Your task to perform on an android device: Clear the shopping cart on newegg. Search for "dell xps" on newegg, select the first entry, add it to the cart, then select checkout. Image 0: 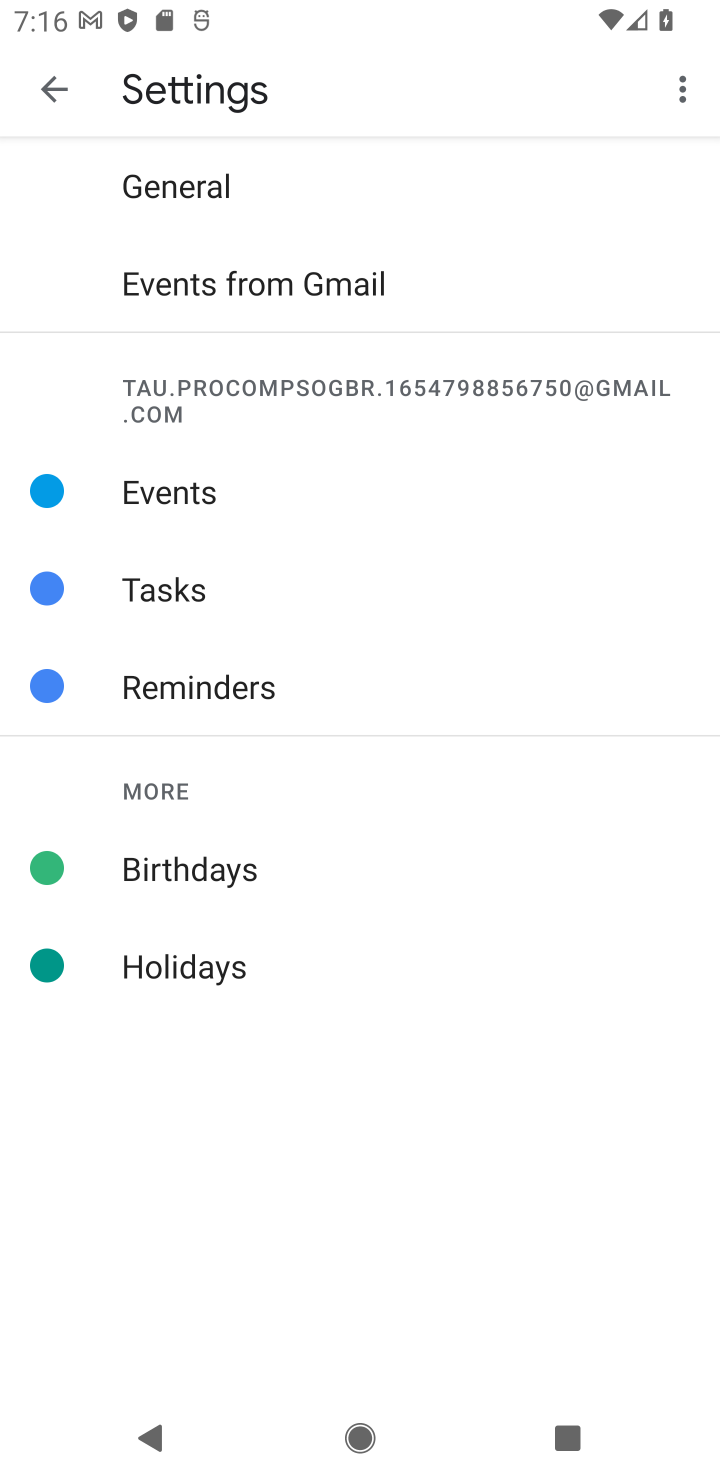
Step 0: press home button
Your task to perform on an android device: Clear the shopping cart on newegg. Search for "dell xps" on newegg, select the first entry, add it to the cart, then select checkout. Image 1: 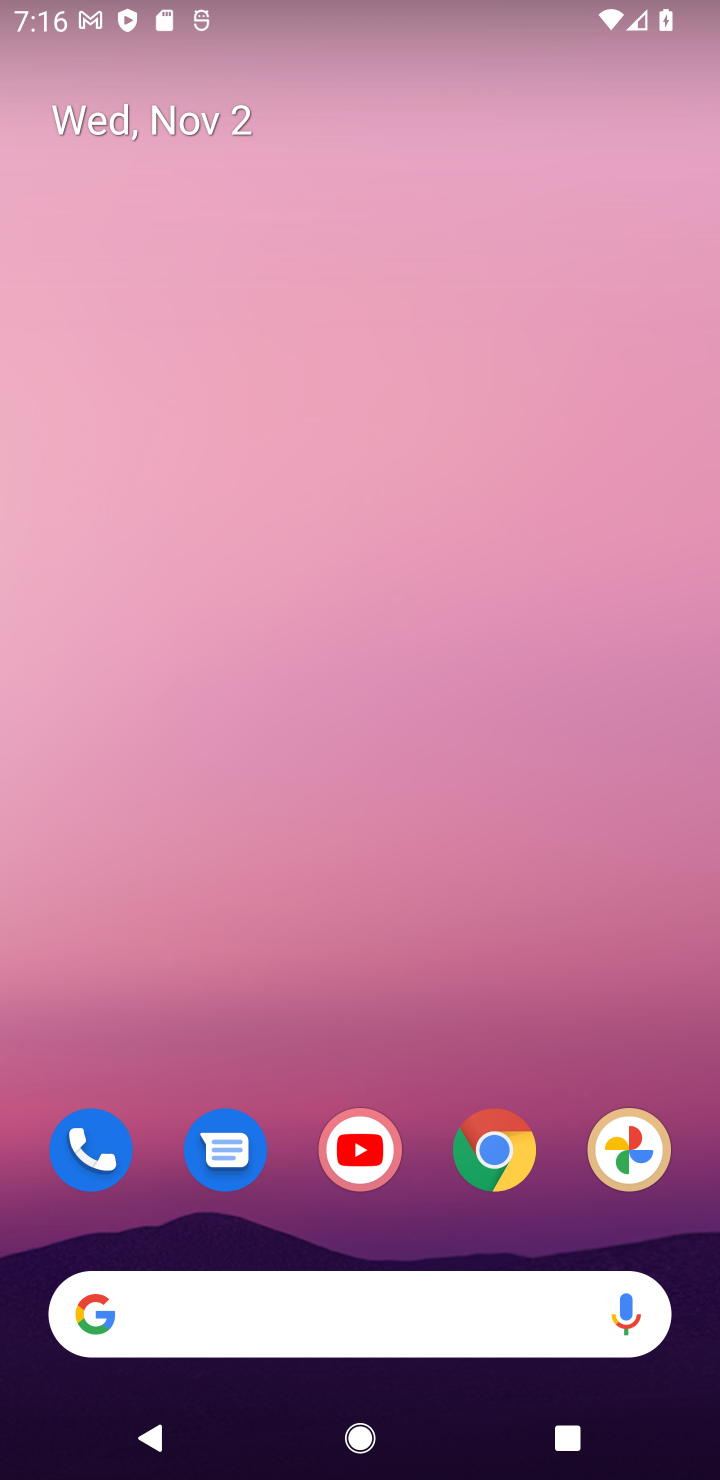
Step 1: click (483, 1162)
Your task to perform on an android device: Clear the shopping cart on newegg. Search for "dell xps" on newegg, select the first entry, add it to the cart, then select checkout. Image 2: 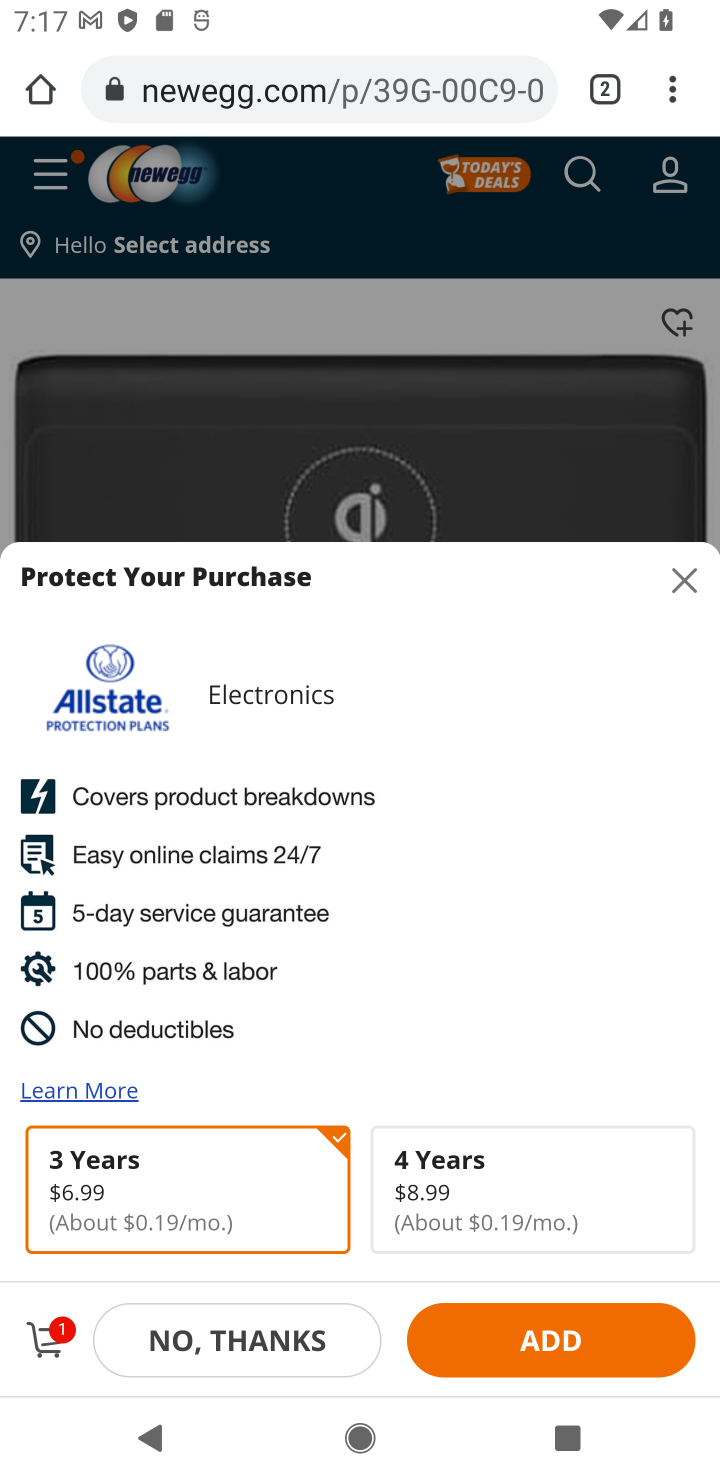
Step 2: click (250, 1328)
Your task to perform on an android device: Clear the shopping cart on newegg. Search for "dell xps" on newegg, select the first entry, add it to the cart, then select checkout. Image 3: 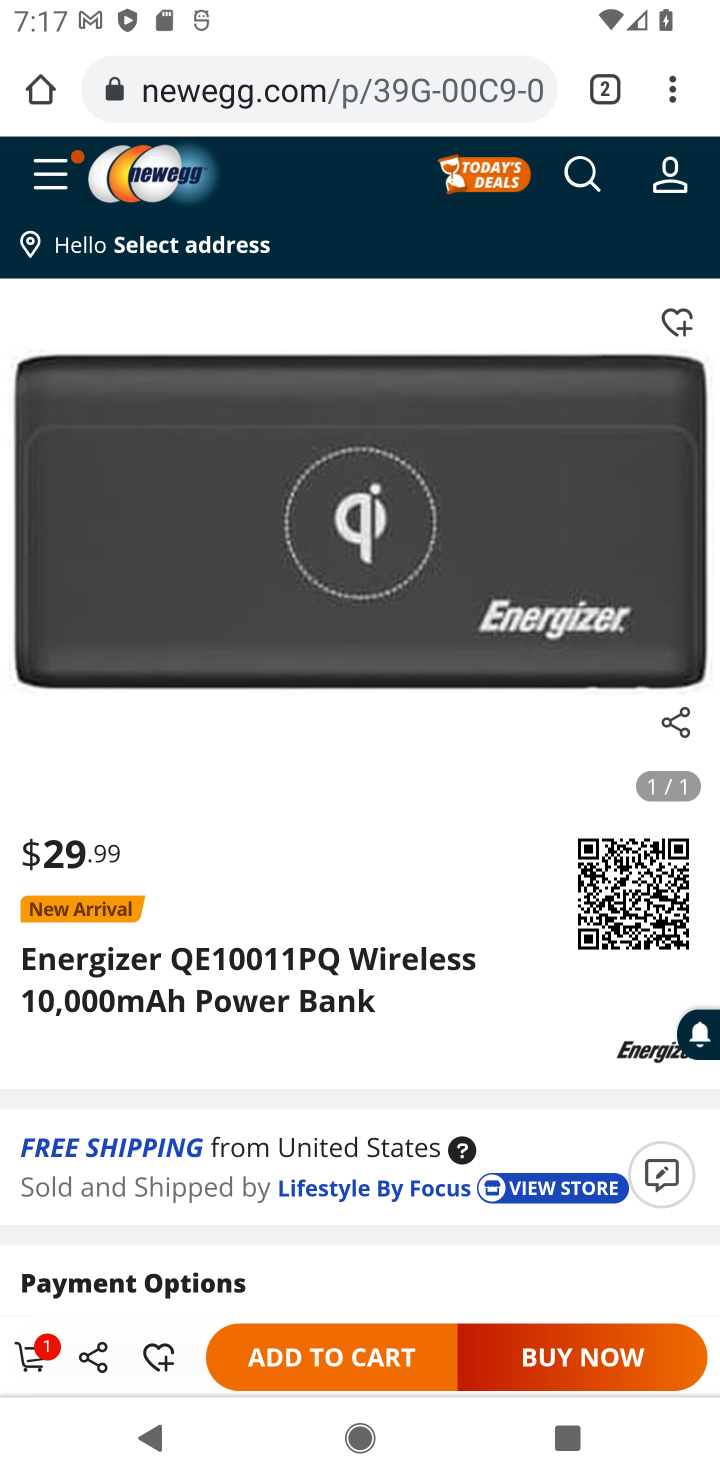
Step 3: click (582, 174)
Your task to perform on an android device: Clear the shopping cart on newegg. Search for "dell xps" on newegg, select the first entry, add it to the cart, then select checkout. Image 4: 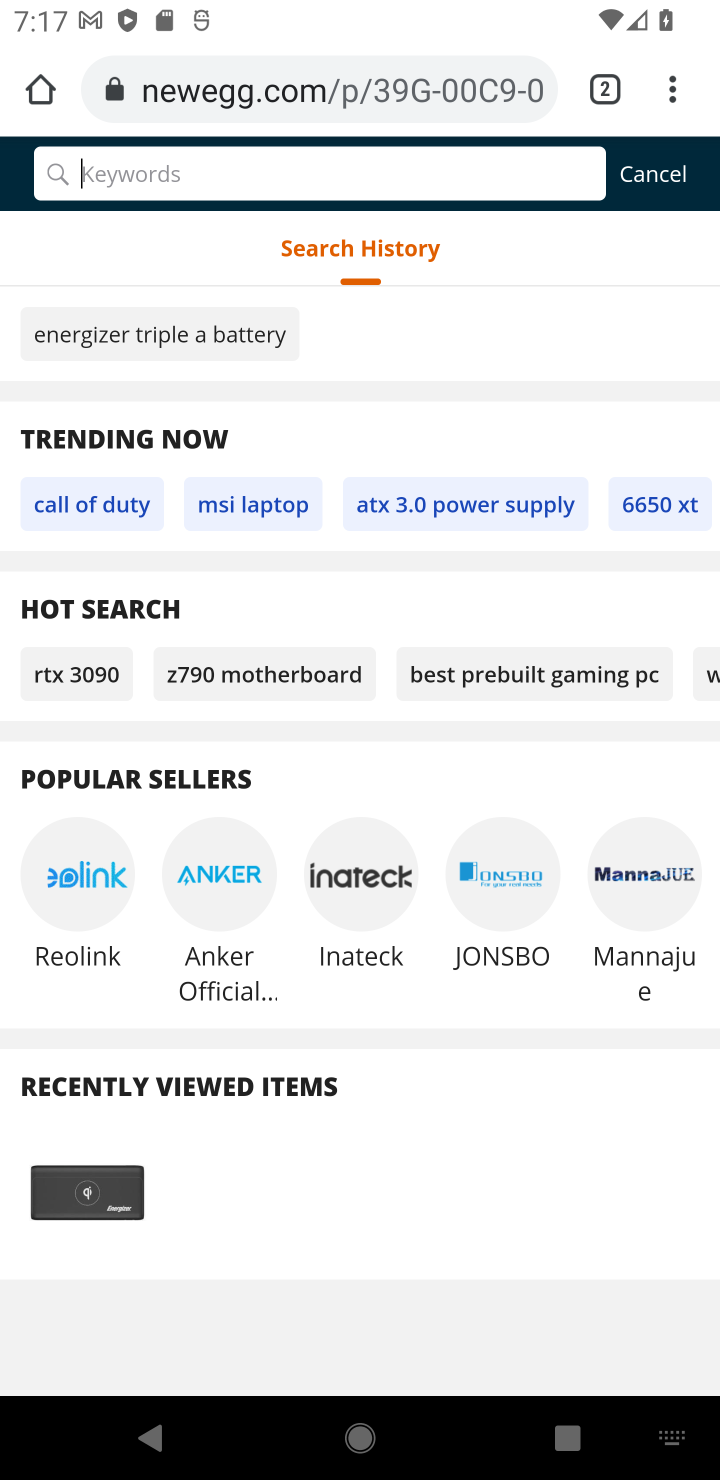
Step 4: type "dell xps"
Your task to perform on an android device: Clear the shopping cart on newegg. Search for "dell xps" on newegg, select the first entry, add it to the cart, then select checkout. Image 5: 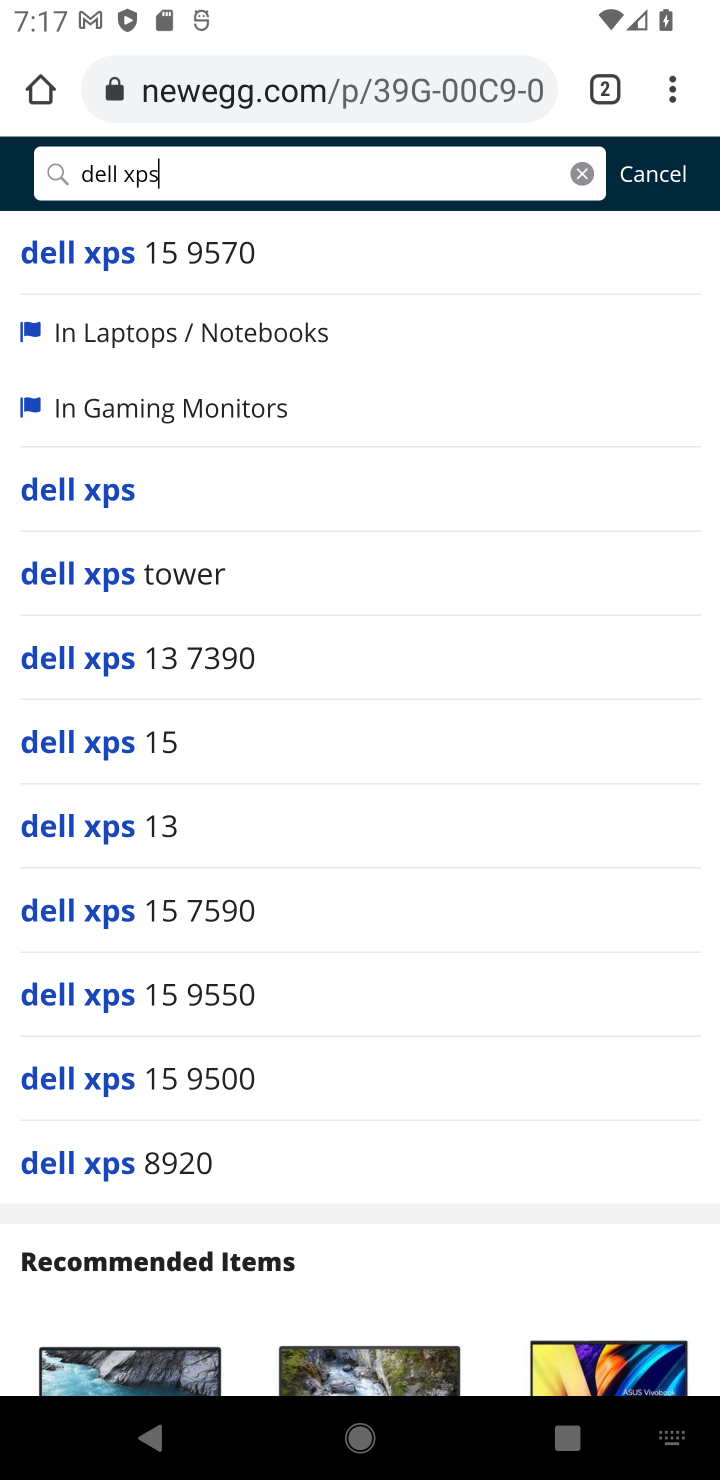
Step 5: click (230, 244)
Your task to perform on an android device: Clear the shopping cart on newegg. Search for "dell xps" on newegg, select the first entry, add it to the cart, then select checkout. Image 6: 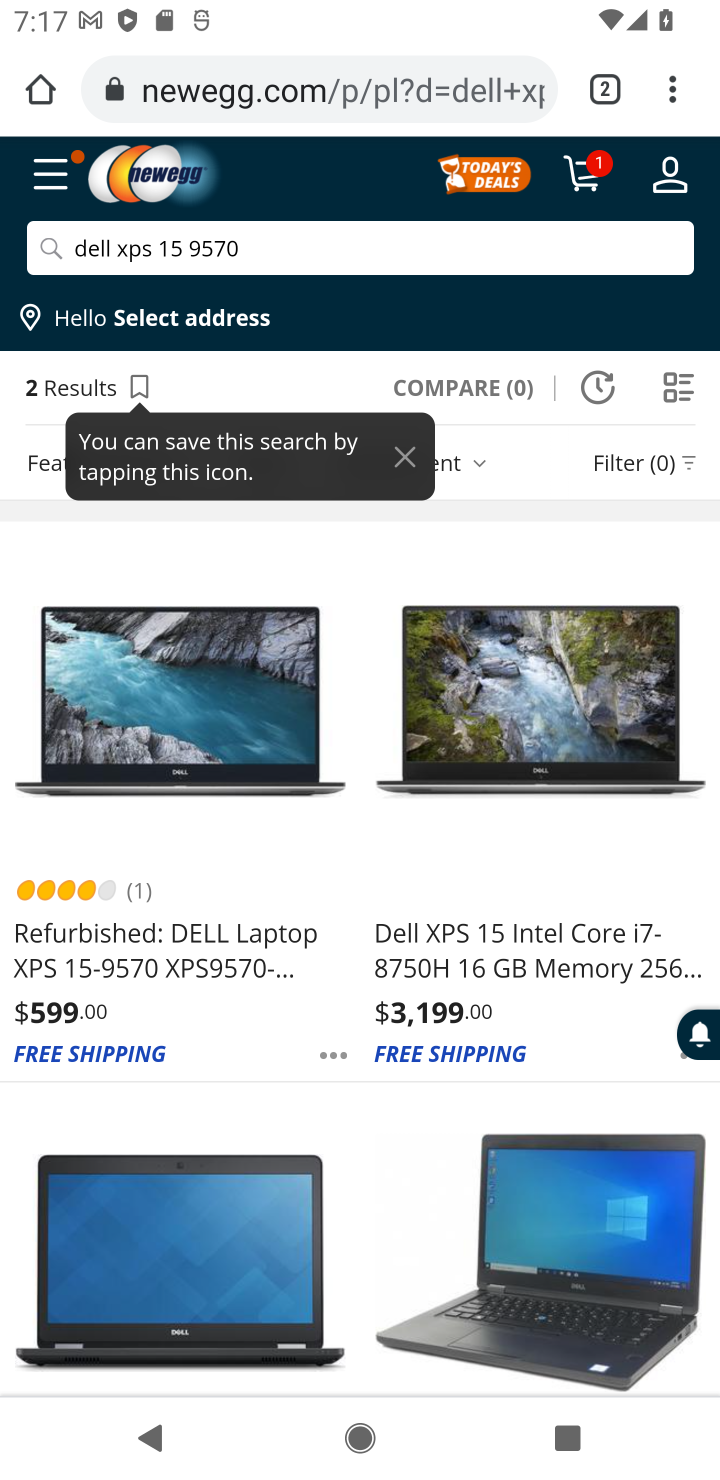
Step 6: click (243, 966)
Your task to perform on an android device: Clear the shopping cart on newegg. Search for "dell xps" on newegg, select the first entry, add it to the cart, then select checkout. Image 7: 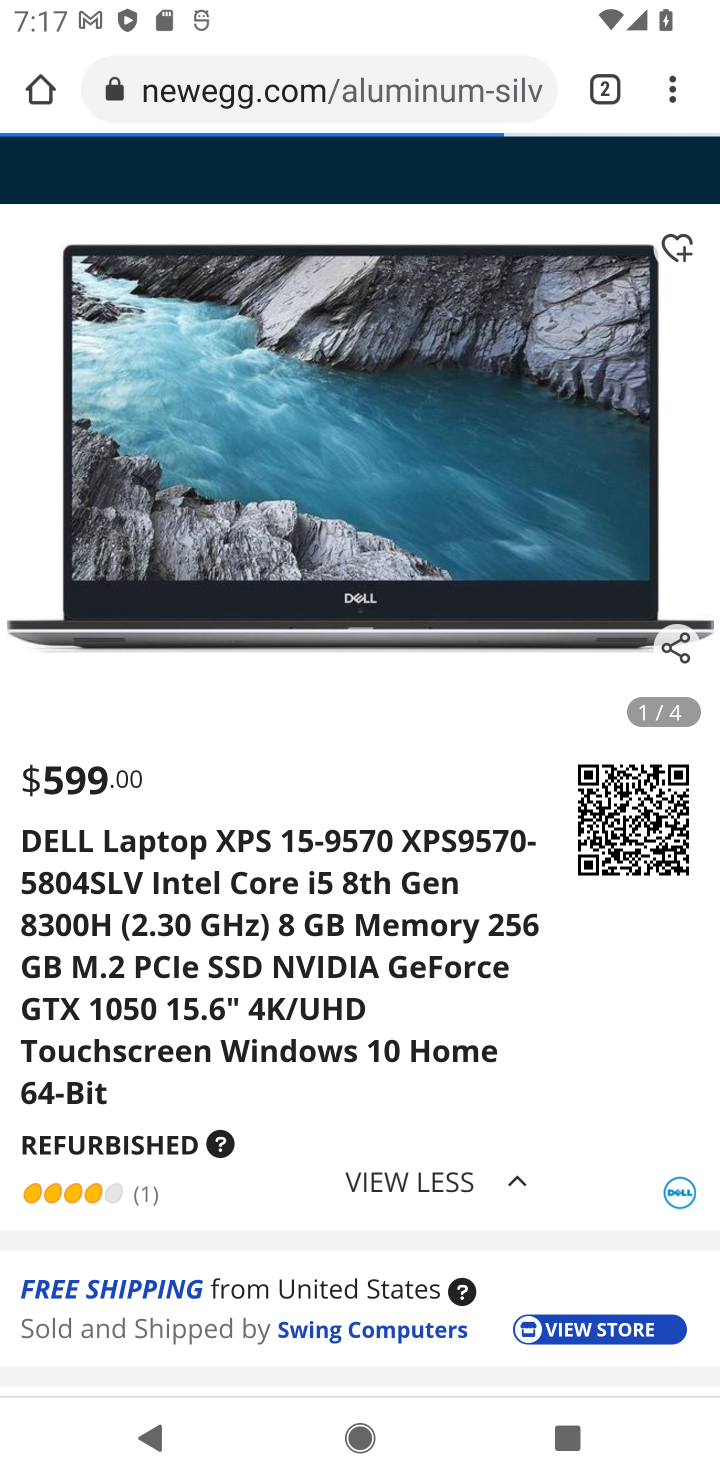
Step 7: click (213, 947)
Your task to perform on an android device: Clear the shopping cart on newegg. Search for "dell xps" on newegg, select the first entry, add it to the cart, then select checkout. Image 8: 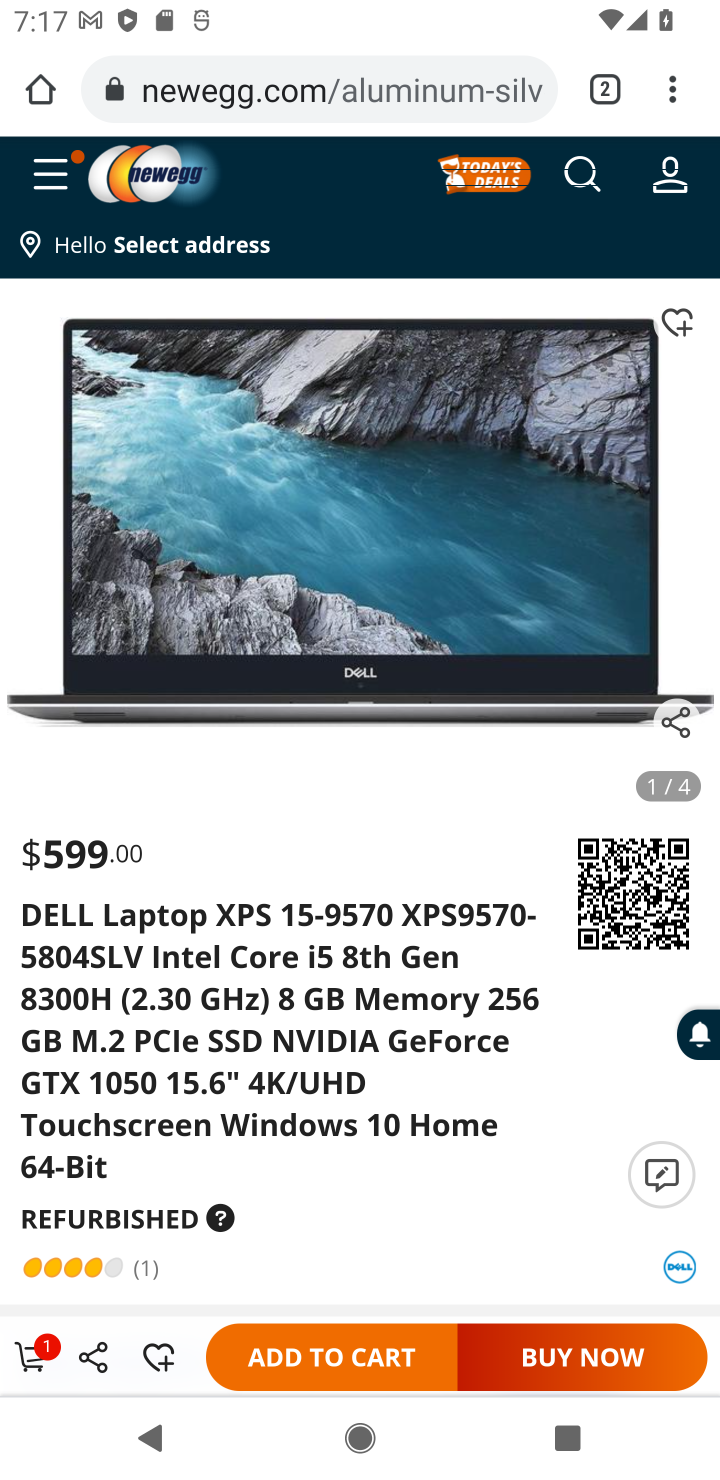
Step 8: click (320, 1350)
Your task to perform on an android device: Clear the shopping cart on newegg. Search for "dell xps" on newegg, select the first entry, add it to the cart, then select checkout. Image 9: 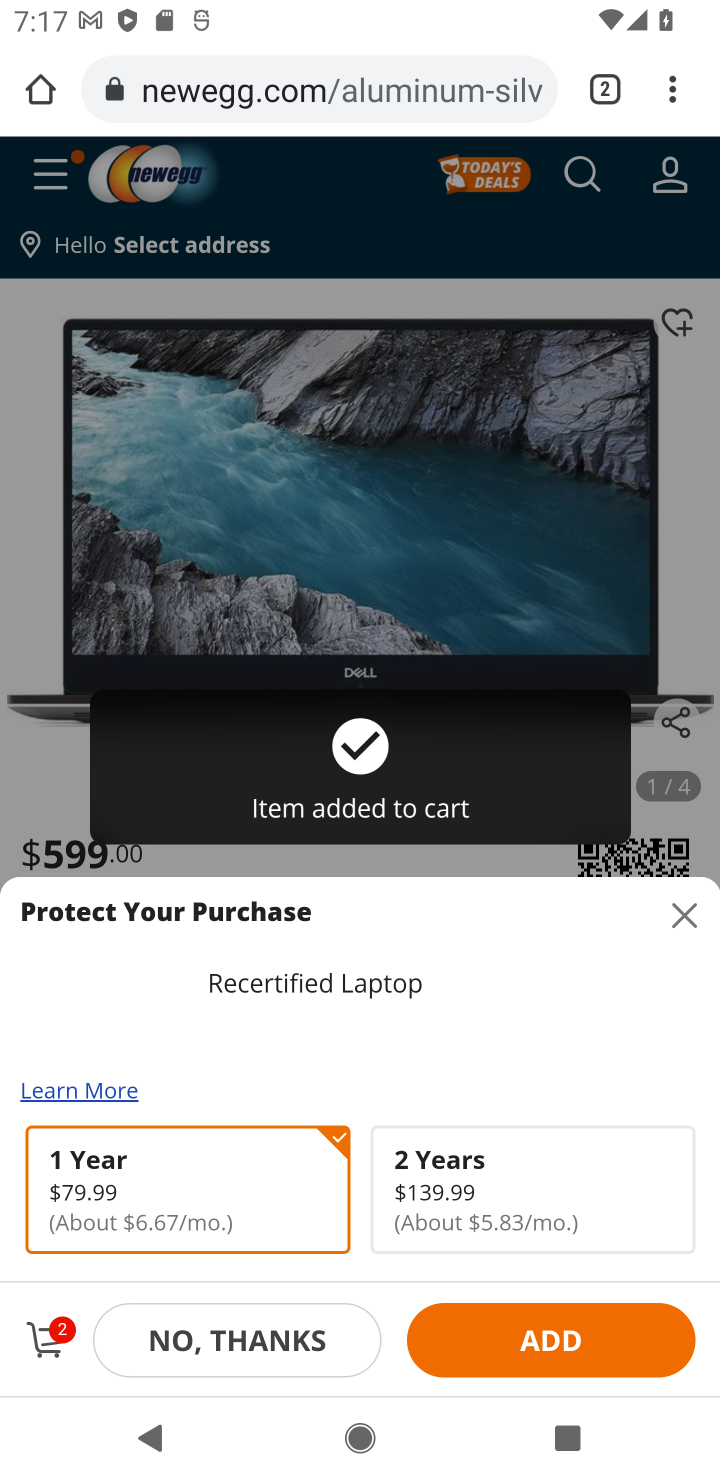
Step 9: task complete